Your task to perform on an android device: Open sound settings Image 0: 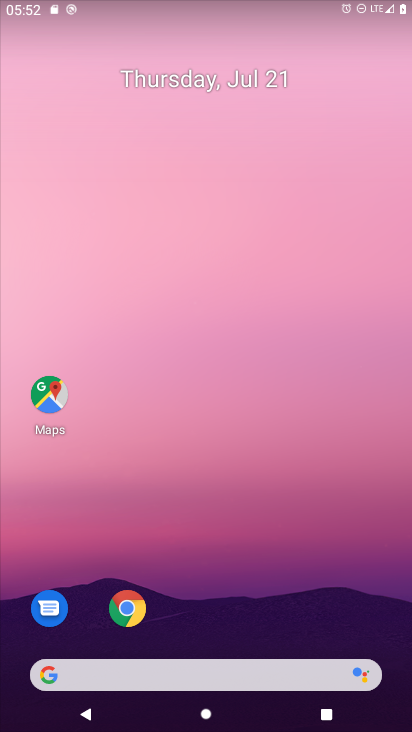
Step 0: drag from (252, 677) to (328, 145)
Your task to perform on an android device: Open sound settings Image 1: 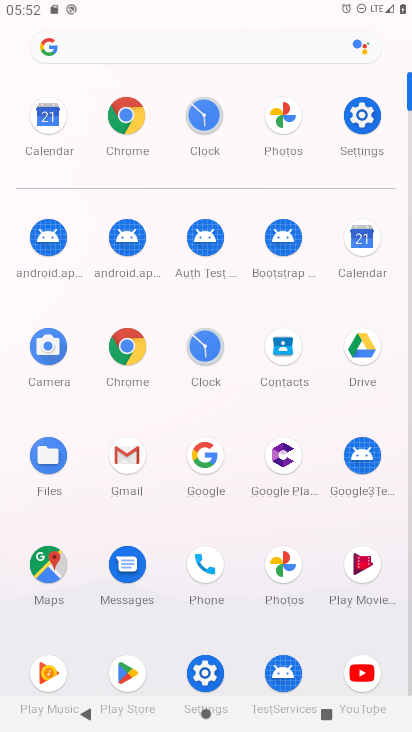
Step 1: click (376, 121)
Your task to perform on an android device: Open sound settings Image 2: 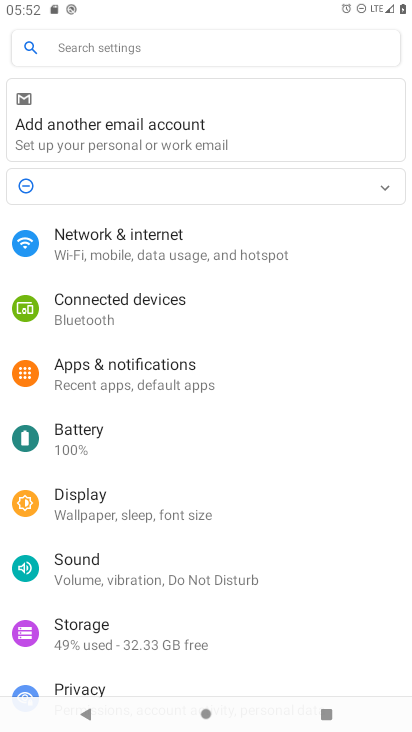
Step 2: click (113, 562)
Your task to perform on an android device: Open sound settings Image 3: 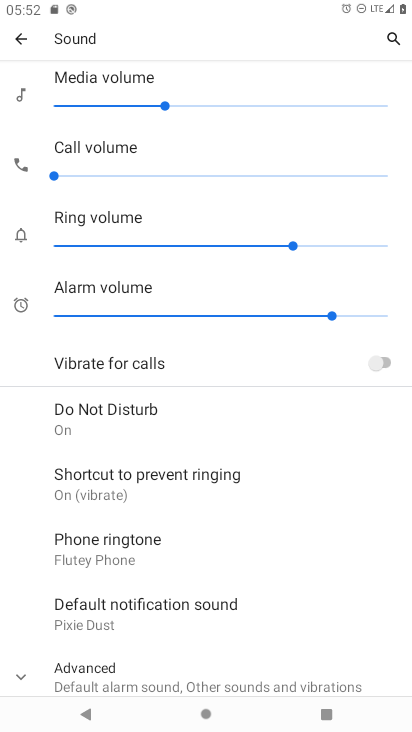
Step 3: task complete